Your task to perform on an android device: Open Yahoo.com Image 0: 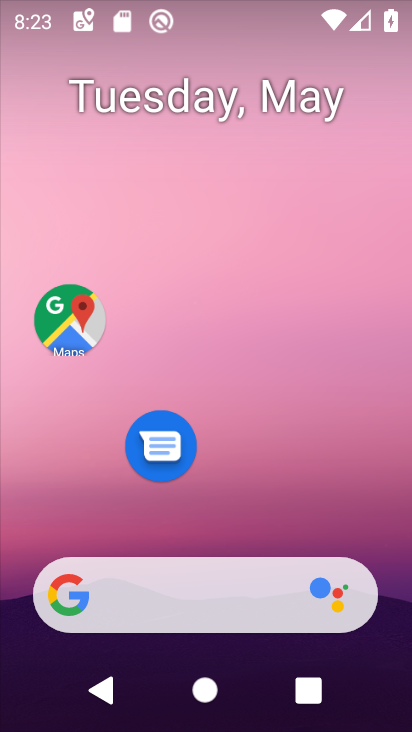
Step 0: drag from (186, 539) to (170, 19)
Your task to perform on an android device: Open Yahoo.com Image 1: 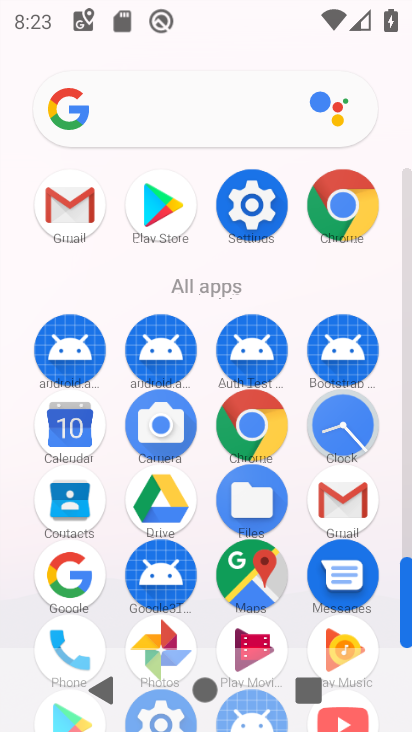
Step 1: click (258, 419)
Your task to perform on an android device: Open Yahoo.com Image 2: 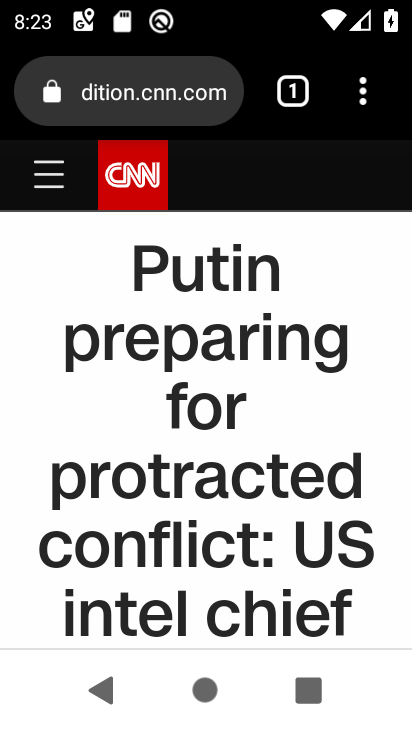
Step 2: click (282, 102)
Your task to perform on an android device: Open Yahoo.com Image 3: 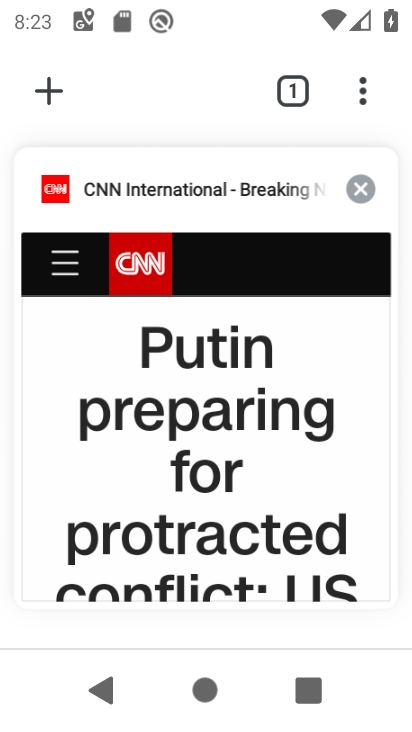
Step 3: click (62, 93)
Your task to perform on an android device: Open Yahoo.com Image 4: 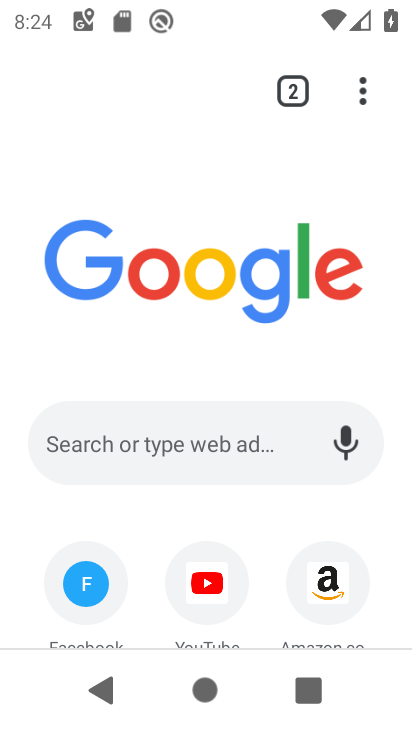
Step 4: drag from (269, 587) to (252, 177)
Your task to perform on an android device: Open Yahoo.com Image 5: 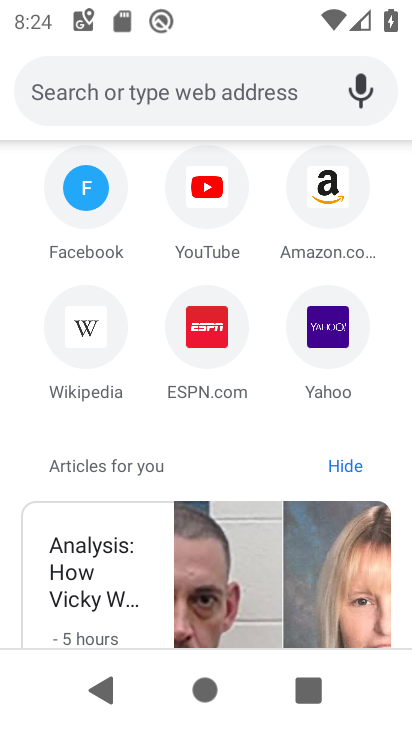
Step 5: click (327, 334)
Your task to perform on an android device: Open Yahoo.com Image 6: 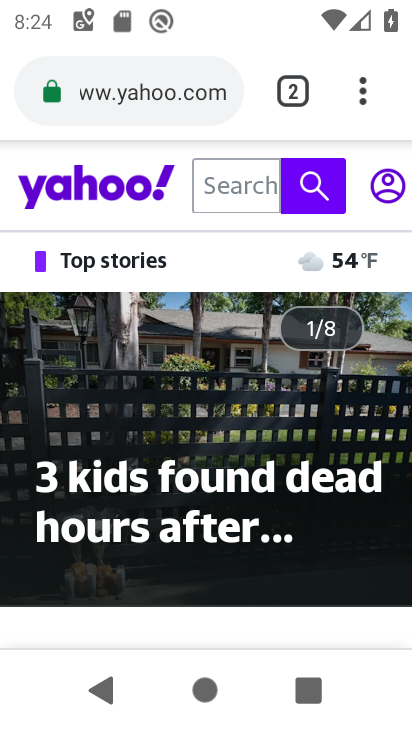
Step 6: task complete